Your task to perform on an android device: turn off data saver in the chrome app Image 0: 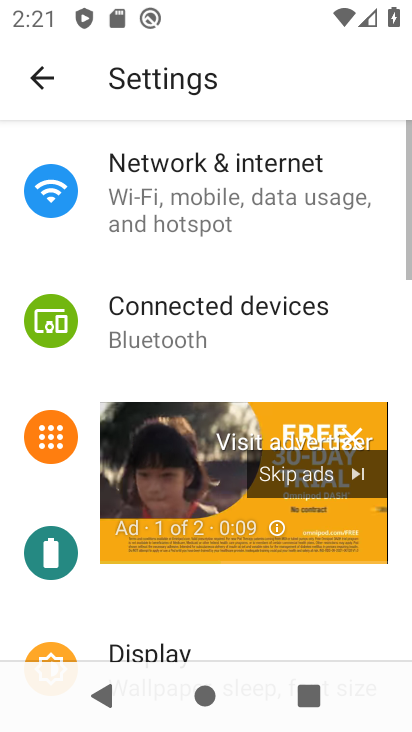
Step 0: press back button
Your task to perform on an android device: turn off data saver in the chrome app Image 1: 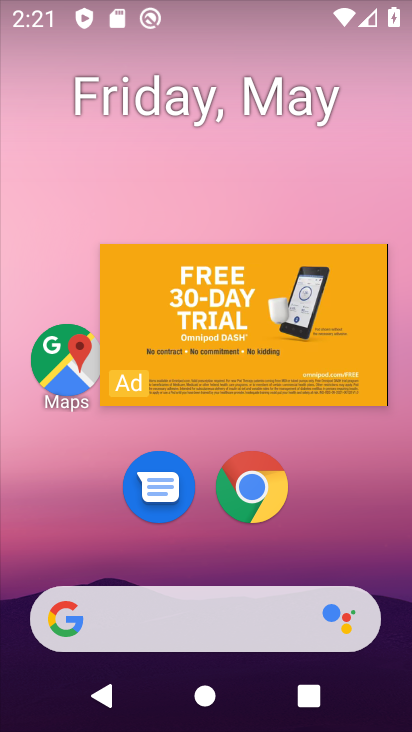
Step 1: click (223, 475)
Your task to perform on an android device: turn off data saver in the chrome app Image 2: 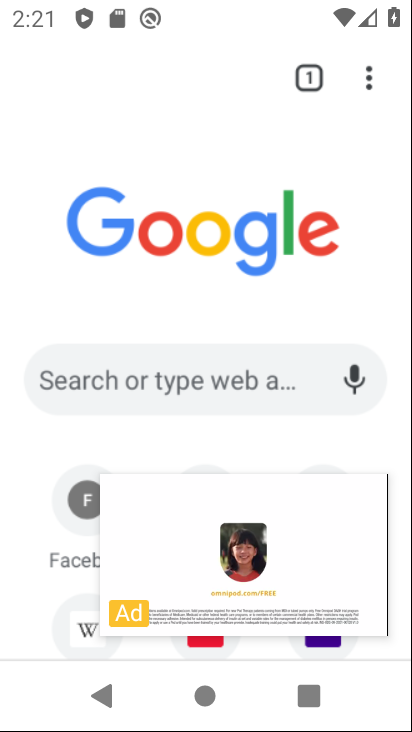
Step 2: click (236, 567)
Your task to perform on an android device: turn off data saver in the chrome app Image 3: 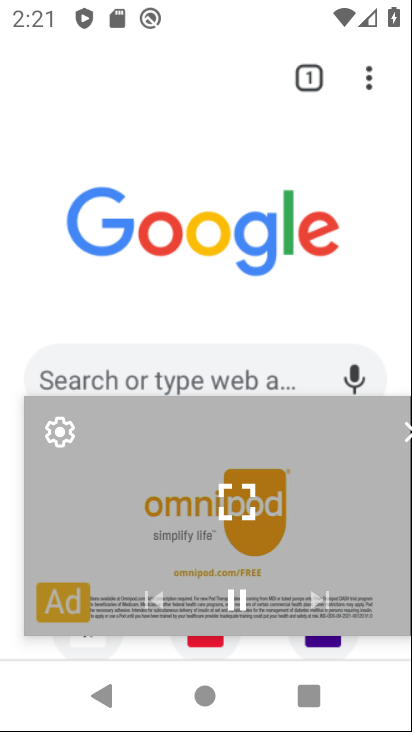
Step 3: click (209, 503)
Your task to perform on an android device: turn off data saver in the chrome app Image 4: 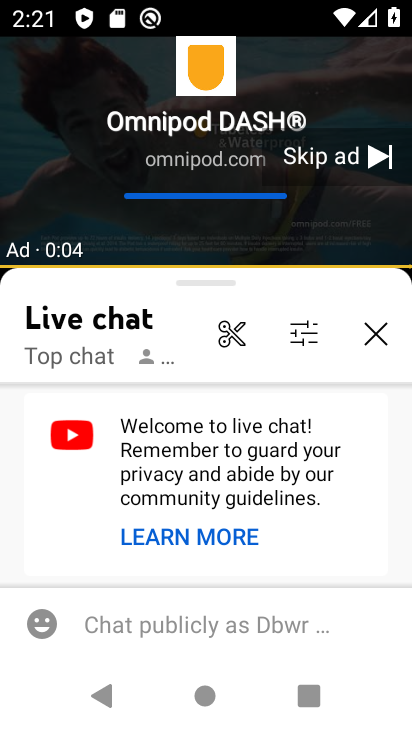
Step 4: click (197, 338)
Your task to perform on an android device: turn off data saver in the chrome app Image 5: 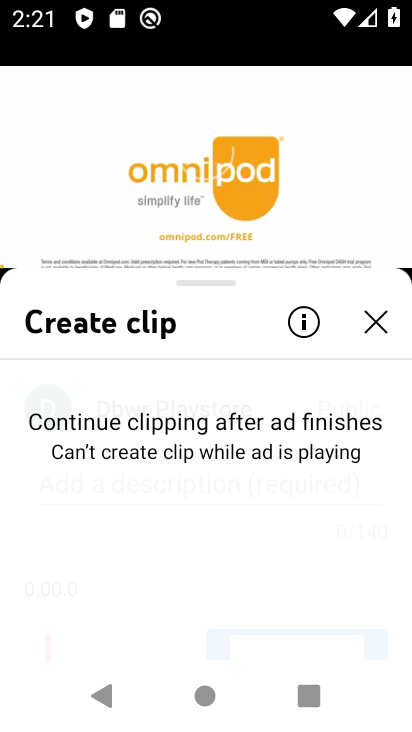
Step 5: click (181, 116)
Your task to perform on an android device: turn off data saver in the chrome app Image 6: 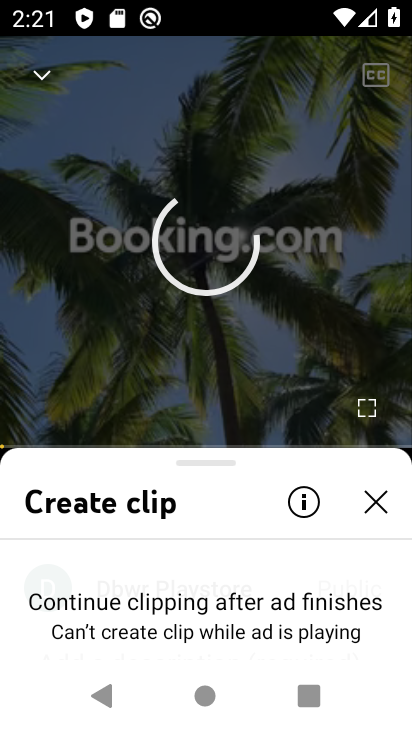
Step 6: click (200, 231)
Your task to perform on an android device: turn off data saver in the chrome app Image 7: 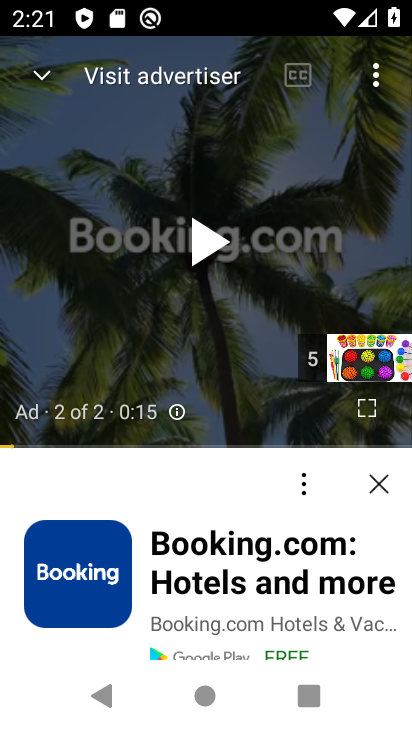
Step 7: press home button
Your task to perform on an android device: turn off data saver in the chrome app Image 8: 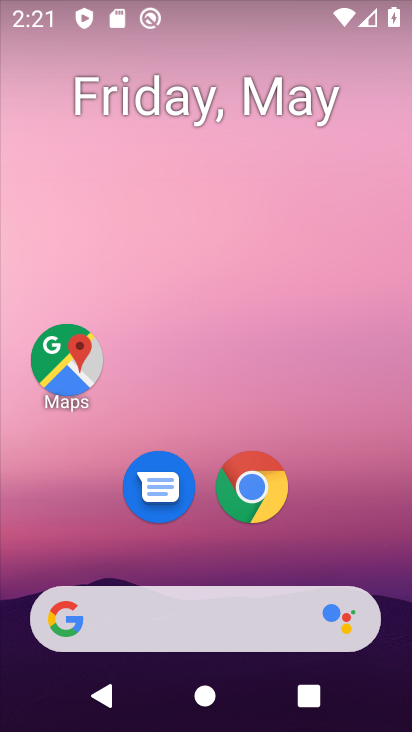
Step 8: click (249, 491)
Your task to perform on an android device: turn off data saver in the chrome app Image 9: 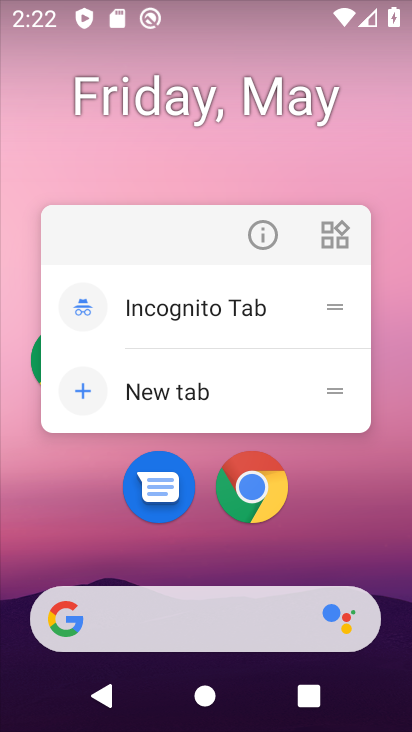
Step 9: click (265, 488)
Your task to perform on an android device: turn off data saver in the chrome app Image 10: 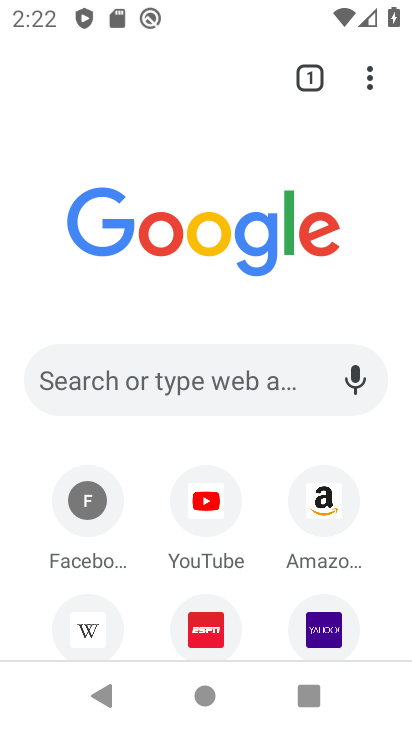
Step 10: click (370, 79)
Your task to perform on an android device: turn off data saver in the chrome app Image 11: 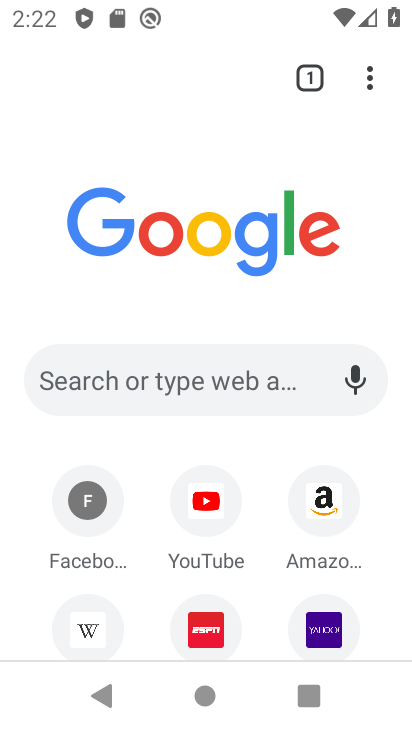
Step 11: drag from (370, 79) to (123, 545)
Your task to perform on an android device: turn off data saver in the chrome app Image 12: 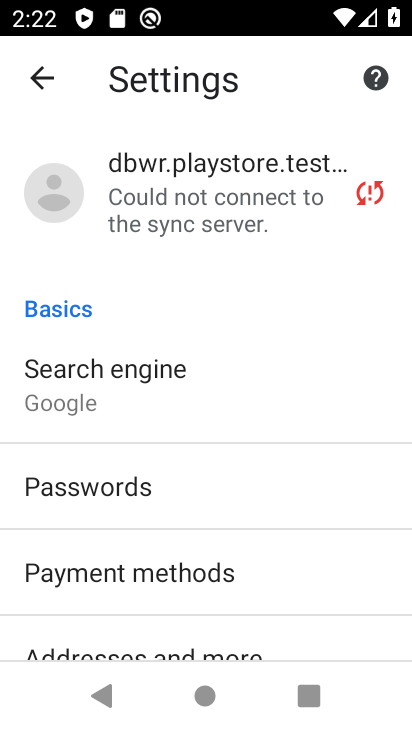
Step 12: drag from (158, 596) to (275, 98)
Your task to perform on an android device: turn off data saver in the chrome app Image 13: 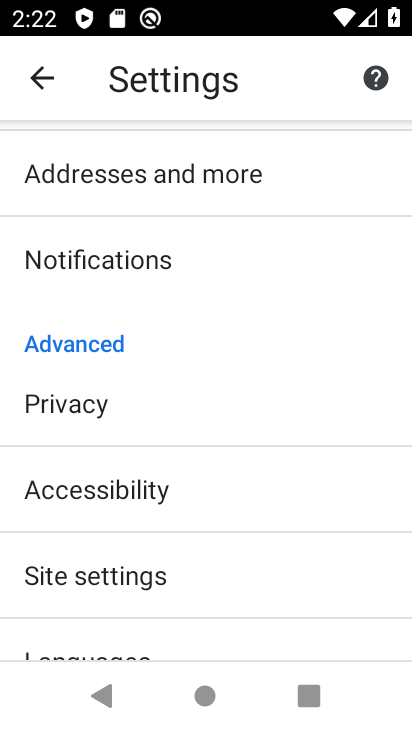
Step 13: drag from (137, 618) to (250, 180)
Your task to perform on an android device: turn off data saver in the chrome app Image 14: 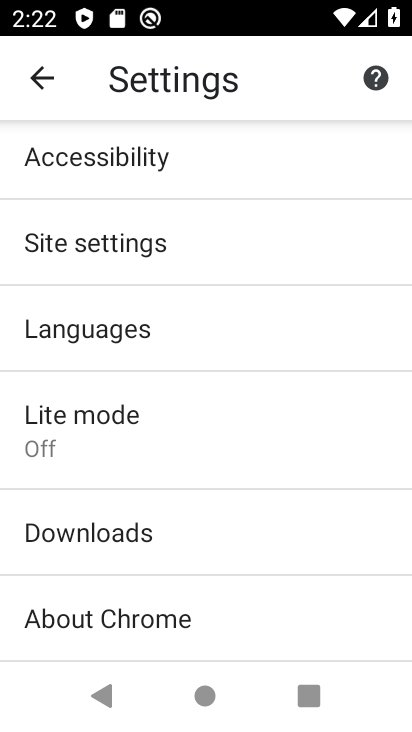
Step 14: click (84, 448)
Your task to perform on an android device: turn off data saver in the chrome app Image 15: 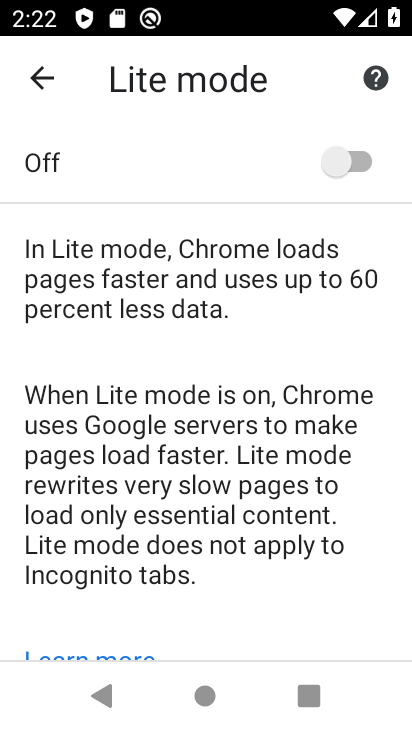
Step 15: task complete